Your task to perform on an android device: change keyboard looks Image 0: 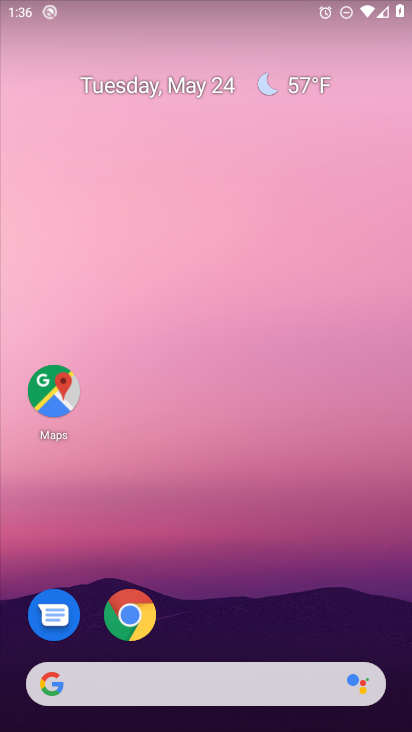
Step 0: drag from (206, 663) to (205, 319)
Your task to perform on an android device: change keyboard looks Image 1: 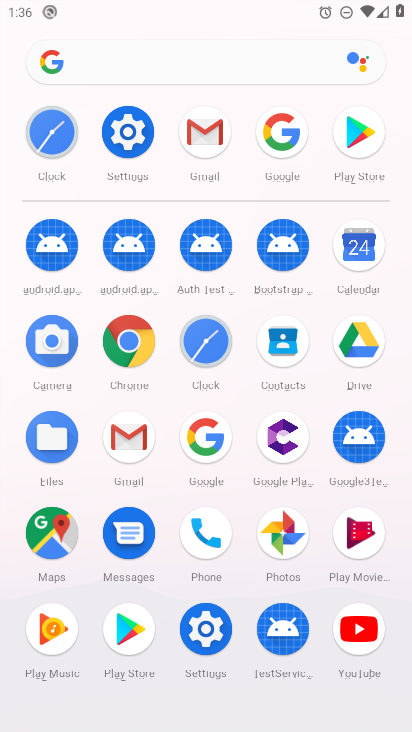
Step 1: click (131, 125)
Your task to perform on an android device: change keyboard looks Image 2: 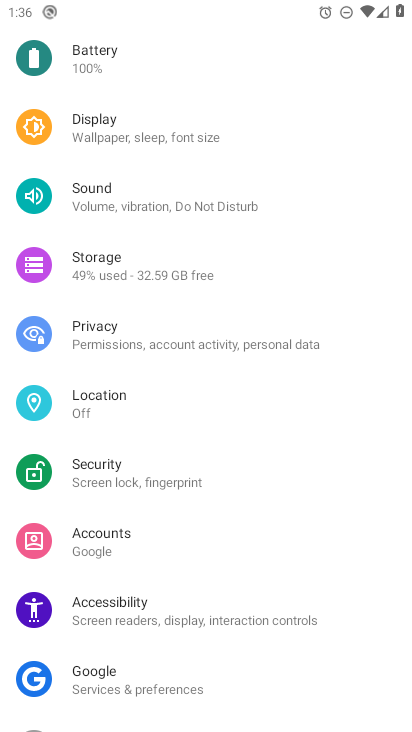
Step 2: drag from (165, 719) to (188, 260)
Your task to perform on an android device: change keyboard looks Image 3: 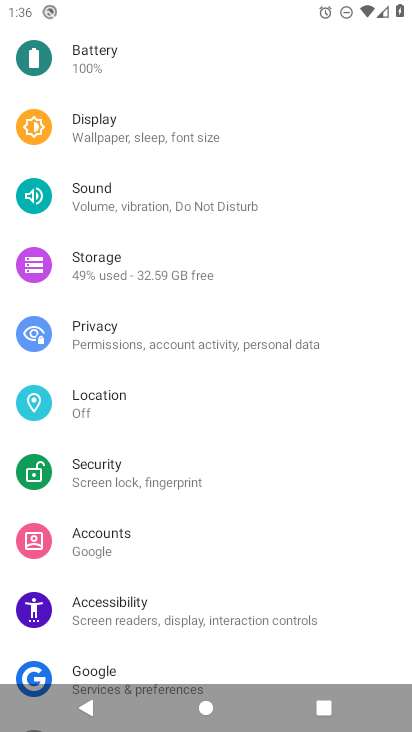
Step 3: drag from (146, 658) to (210, 206)
Your task to perform on an android device: change keyboard looks Image 4: 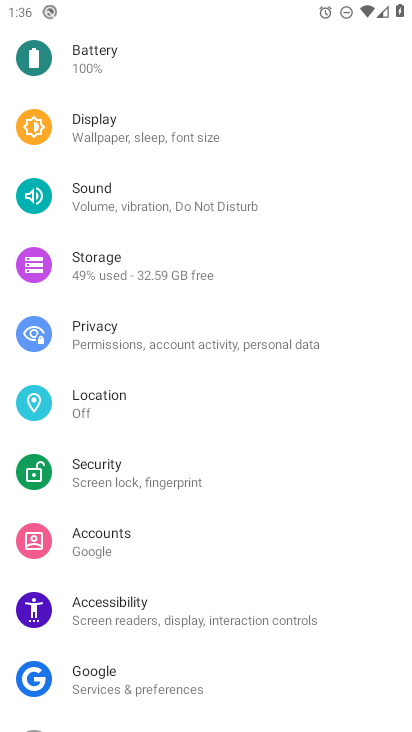
Step 4: drag from (162, 710) to (213, 220)
Your task to perform on an android device: change keyboard looks Image 5: 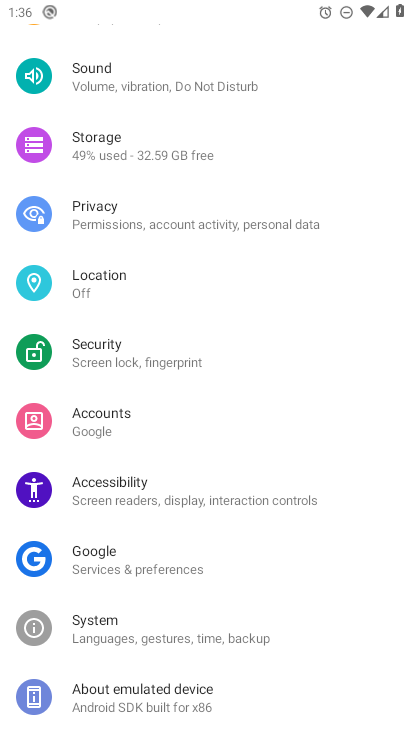
Step 5: click (98, 628)
Your task to perform on an android device: change keyboard looks Image 6: 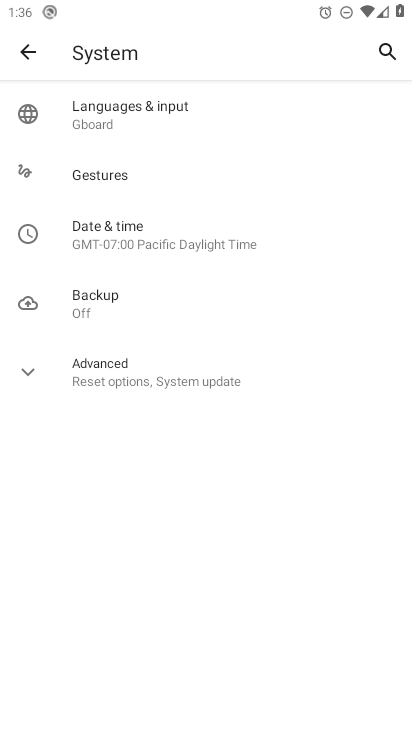
Step 6: click (129, 111)
Your task to perform on an android device: change keyboard looks Image 7: 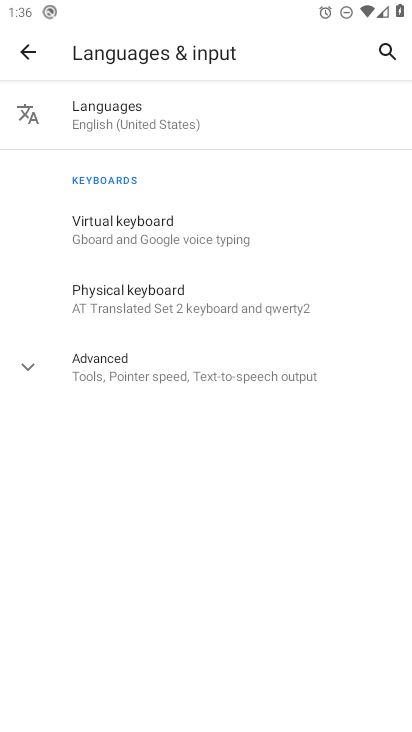
Step 7: click (123, 236)
Your task to perform on an android device: change keyboard looks Image 8: 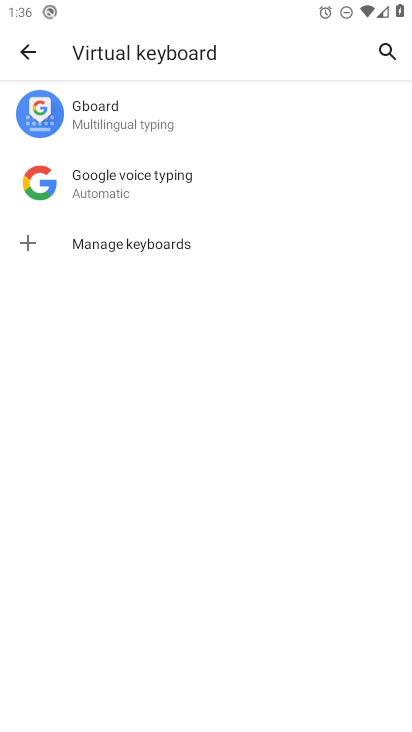
Step 8: click (126, 118)
Your task to perform on an android device: change keyboard looks Image 9: 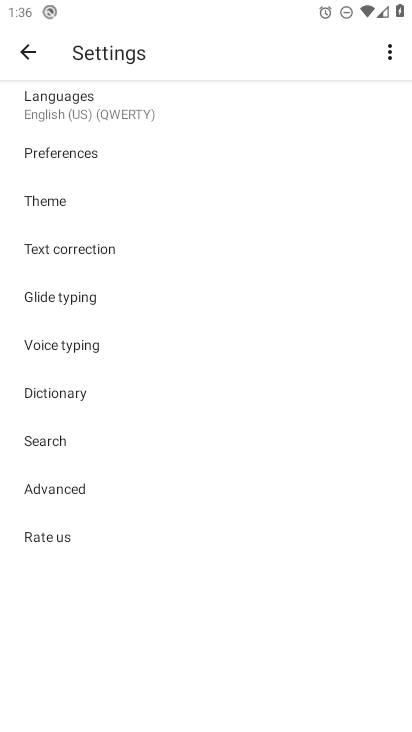
Step 9: drag from (31, 186) to (1, 301)
Your task to perform on an android device: change keyboard looks Image 10: 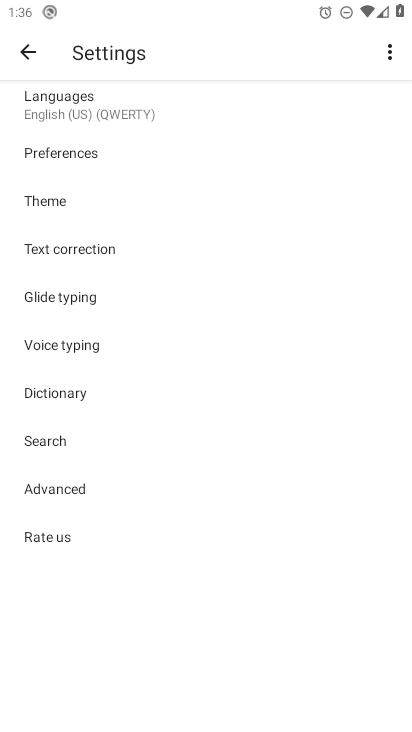
Step 10: click (51, 206)
Your task to perform on an android device: change keyboard looks Image 11: 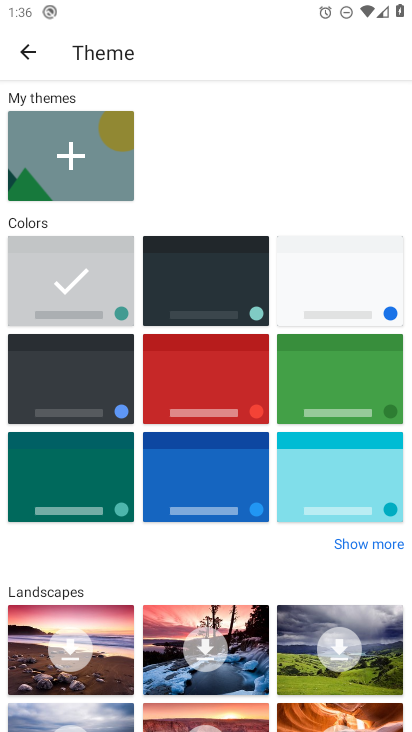
Step 11: click (229, 408)
Your task to perform on an android device: change keyboard looks Image 12: 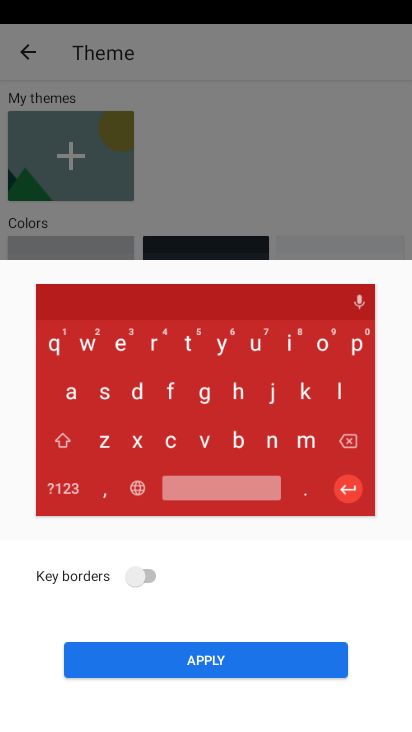
Step 12: click (227, 661)
Your task to perform on an android device: change keyboard looks Image 13: 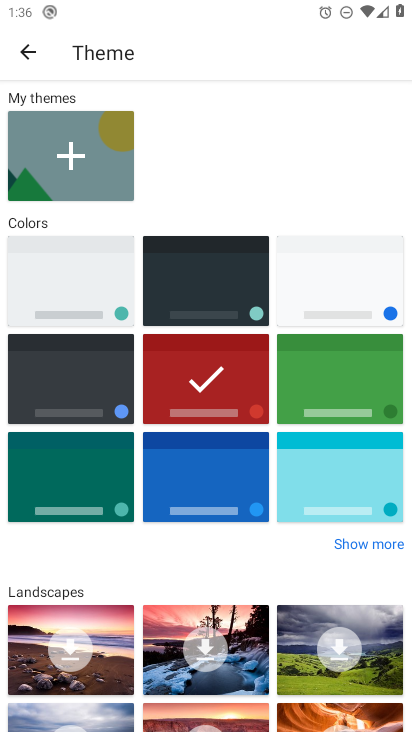
Step 13: task complete